Your task to perform on an android device: Open calendar and show me the third week of next month Image 0: 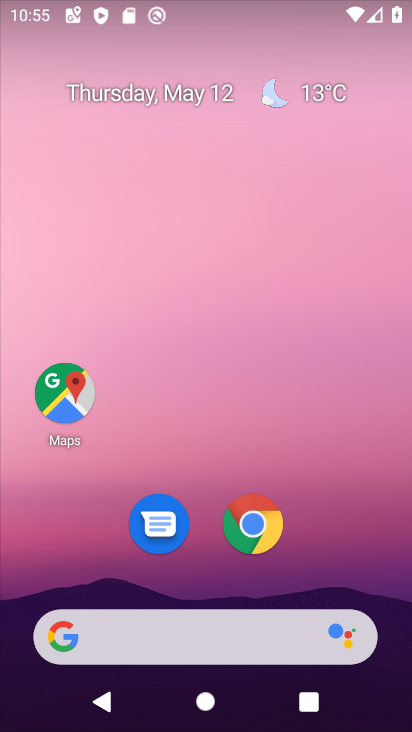
Step 0: drag from (346, 521) to (340, 41)
Your task to perform on an android device: Open calendar and show me the third week of next month Image 1: 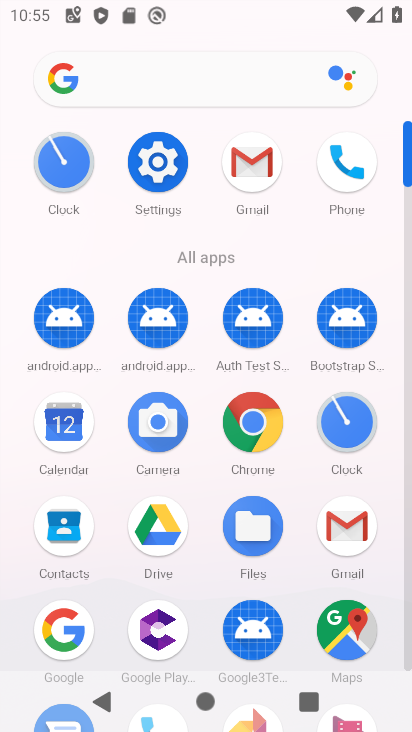
Step 1: click (58, 421)
Your task to perform on an android device: Open calendar and show me the third week of next month Image 2: 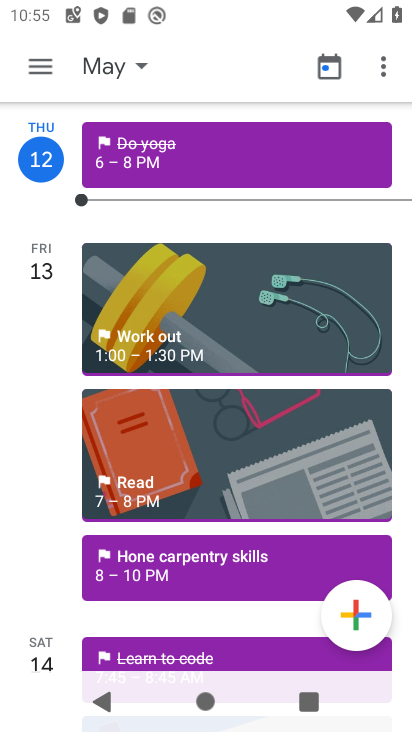
Step 2: click (46, 65)
Your task to perform on an android device: Open calendar and show me the third week of next month Image 3: 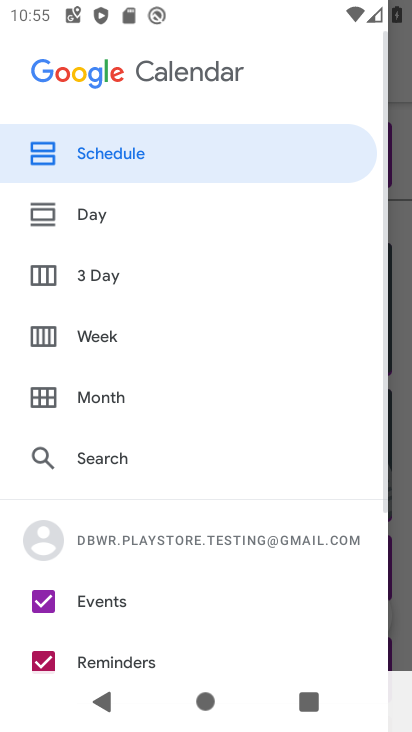
Step 3: click (64, 388)
Your task to perform on an android device: Open calendar and show me the third week of next month Image 4: 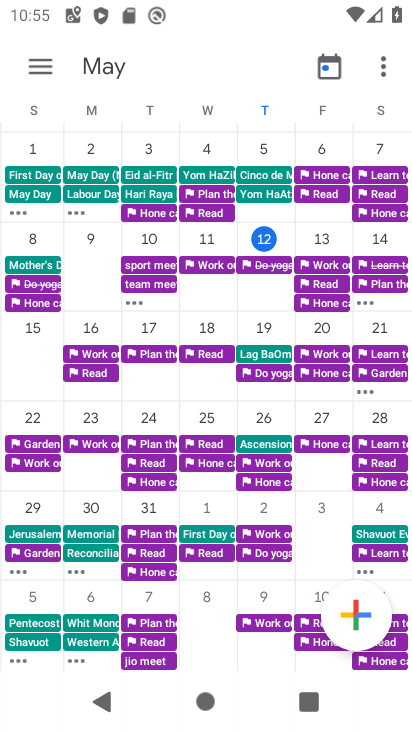
Step 4: drag from (348, 337) to (5, 380)
Your task to perform on an android device: Open calendar and show me the third week of next month Image 5: 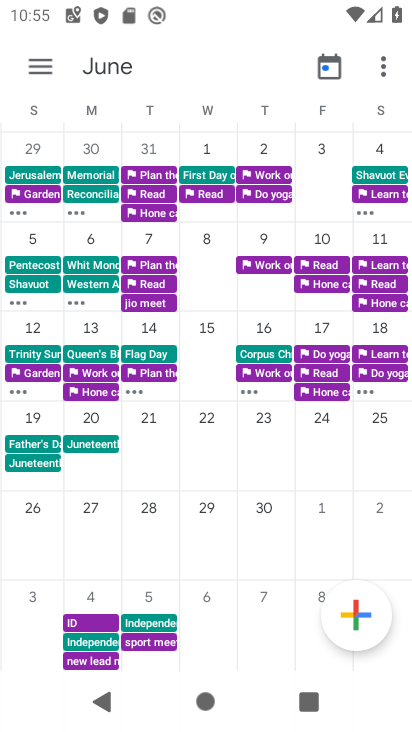
Step 5: click (33, 414)
Your task to perform on an android device: Open calendar and show me the third week of next month Image 6: 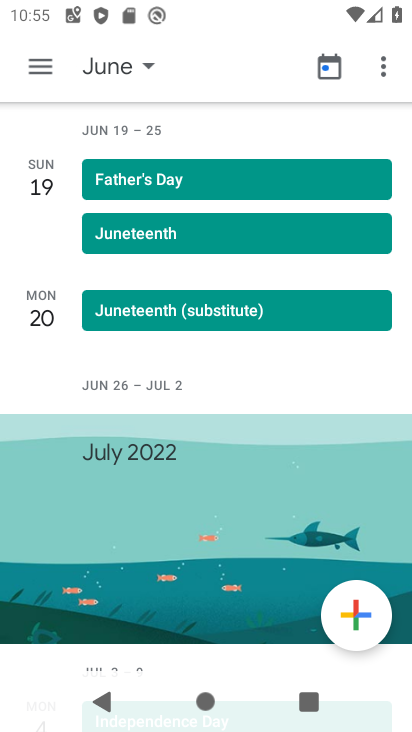
Step 6: click (37, 58)
Your task to perform on an android device: Open calendar and show me the third week of next month Image 7: 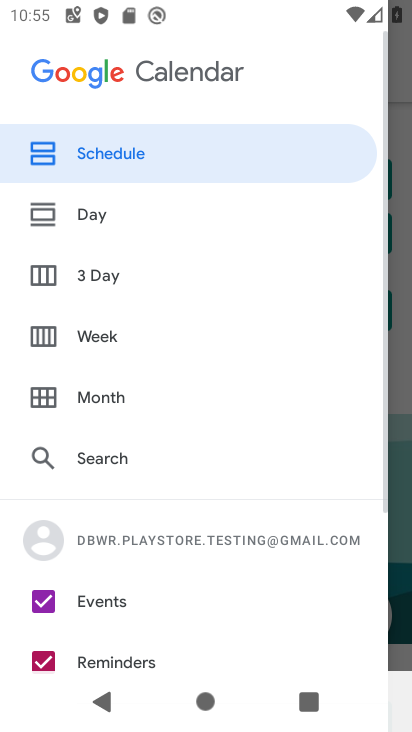
Step 7: click (83, 327)
Your task to perform on an android device: Open calendar and show me the third week of next month Image 8: 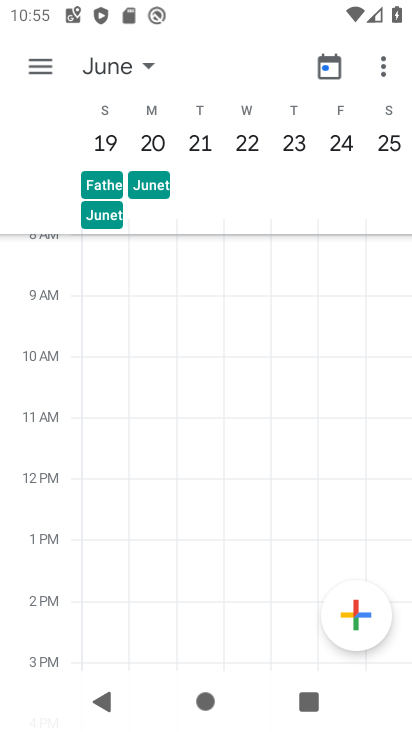
Step 8: task complete